Your task to perform on an android device: Go to accessibility settings Image 0: 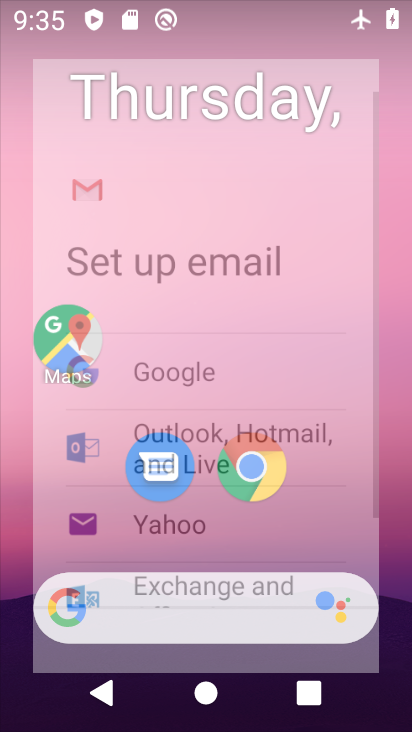
Step 0: drag from (283, 282) to (408, 338)
Your task to perform on an android device: Go to accessibility settings Image 1: 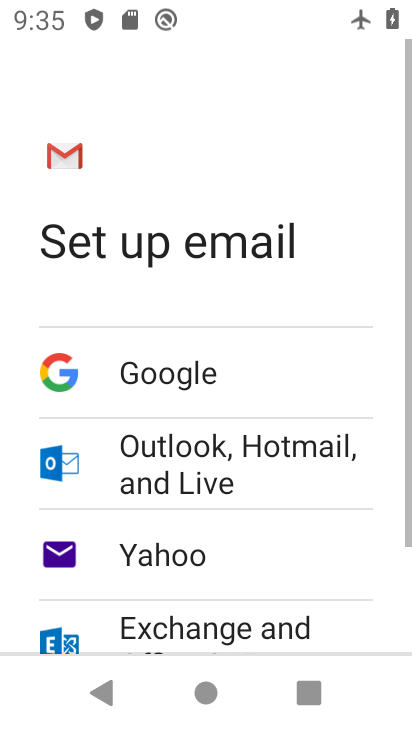
Step 1: press home button
Your task to perform on an android device: Go to accessibility settings Image 2: 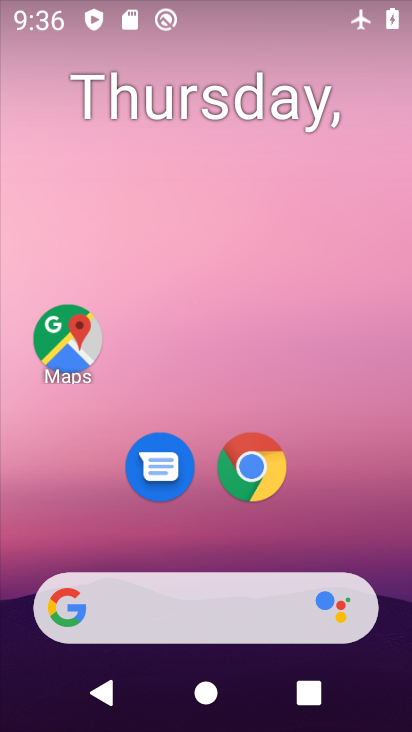
Step 2: drag from (350, 495) to (411, 201)
Your task to perform on an android device: Go to accessibility settings Image 3: 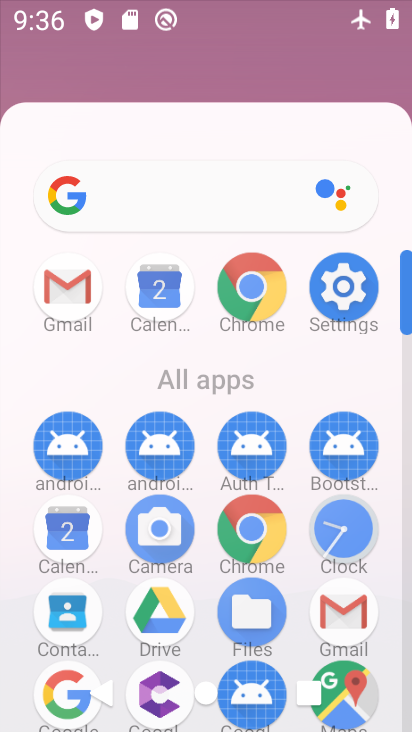
Step 3: click (372, 221)
Your task to perform on an android device: Go to accessibility settings Image 4: 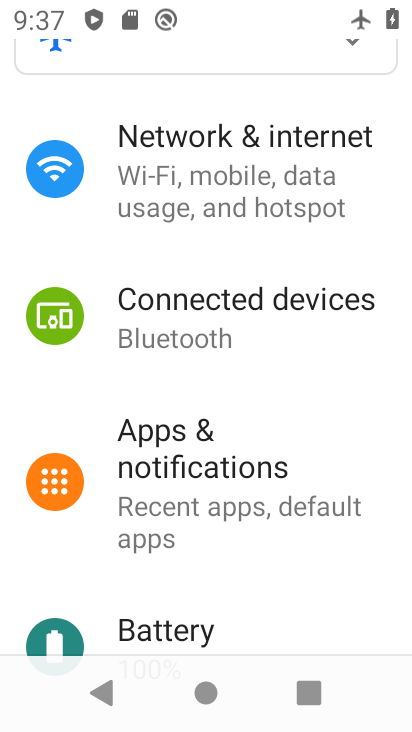
Step 4: drag from (317, 578) to (353, 313)
Your task to perform on an android device: Go to accessibility settings Image 5: 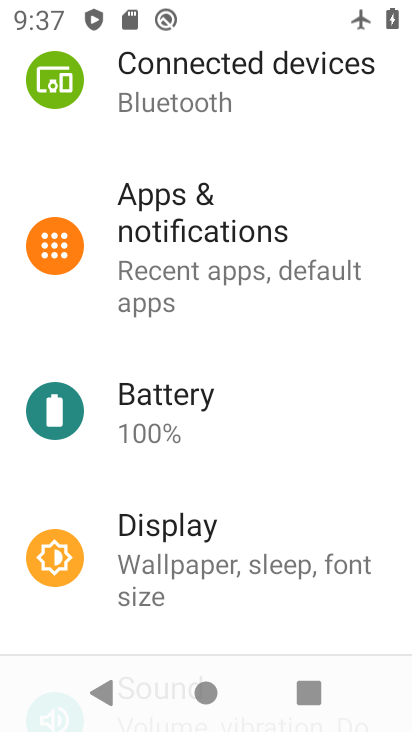
Step 5: drag from (238, 622) to (198, 139)
Your task to perform on an android device: Go to accessibility settings Image 6: 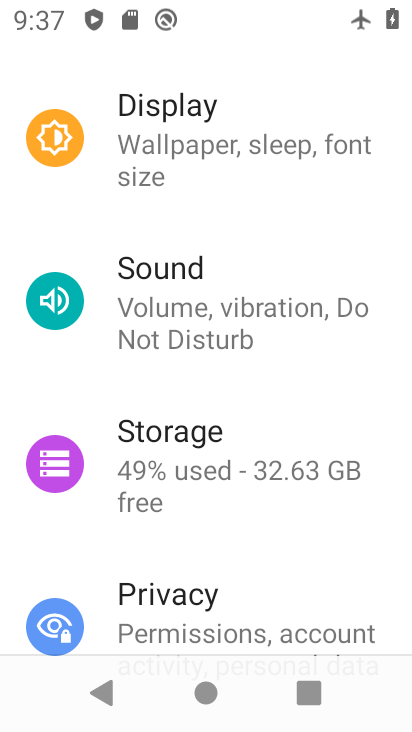
Step 6: drag from (255, 554) to (239, 76)
Your task to perform on an android device: Go to accessibility settings Image 7: 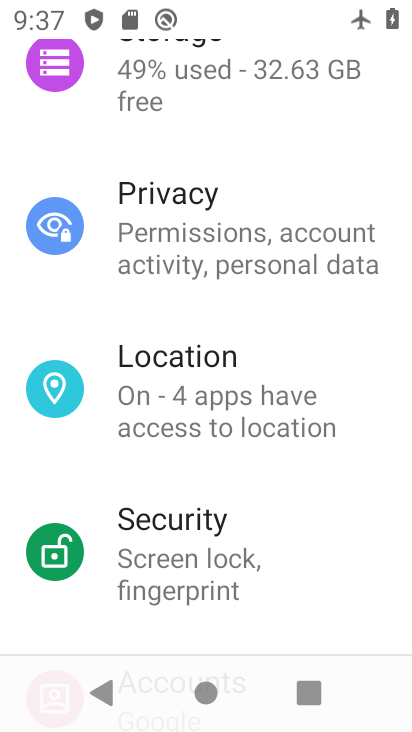
Step 7: drag from (235, 620) to (167, 83)
Your task to perform on an android device: Go to accessibility settings Image 8: 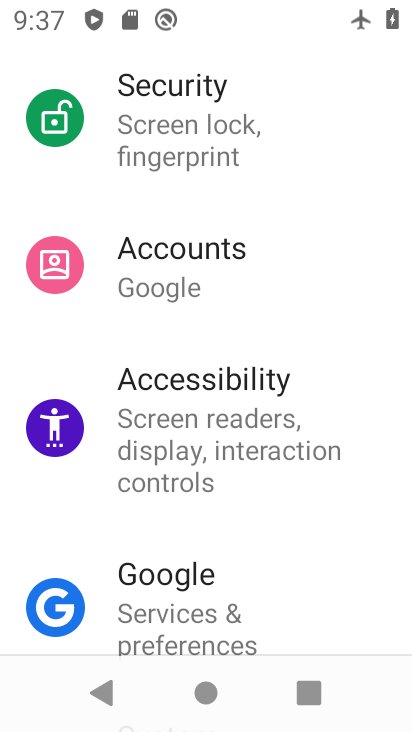
Step 8: click (210, 435)
Your task to perform on an android device: Go to accessibility settings Image 9: 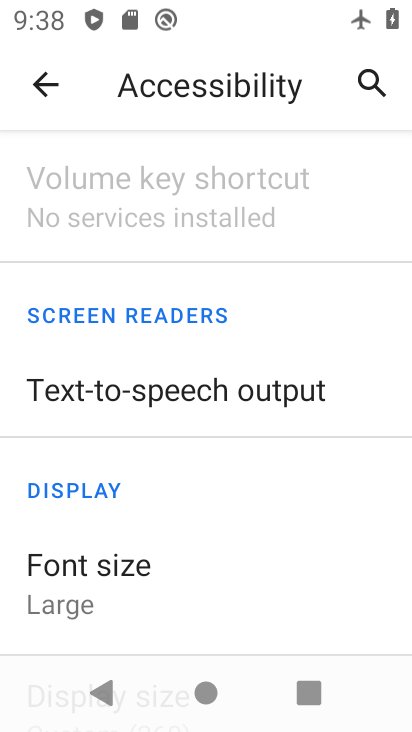
Step 9: task complete